Your task to perform on an android device: What's on my calendar tomorrow? Image 0: 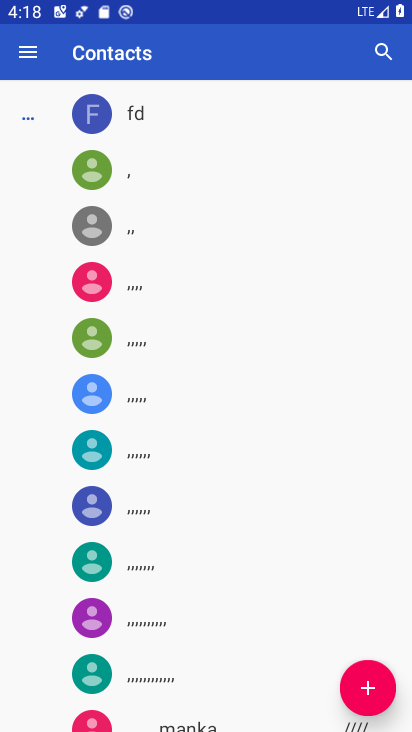
Step 0: press home button
Your task to perform on an android device: What's on my calendar tomorrow? Image 1: 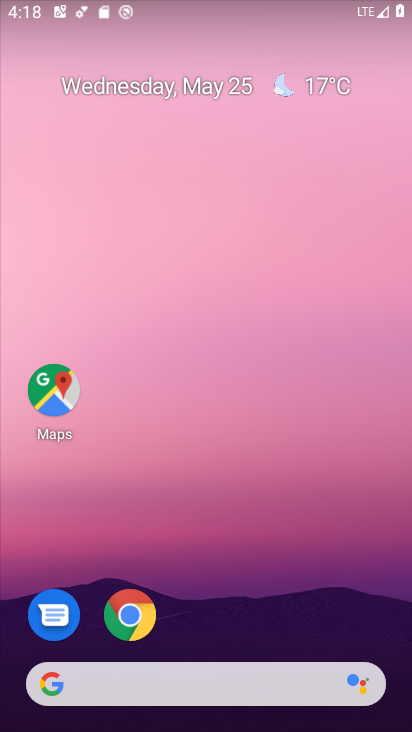
Step 1: click (165, 92)
Your task to perform on an android device: What's on my calendar tomorrow? Image 2: 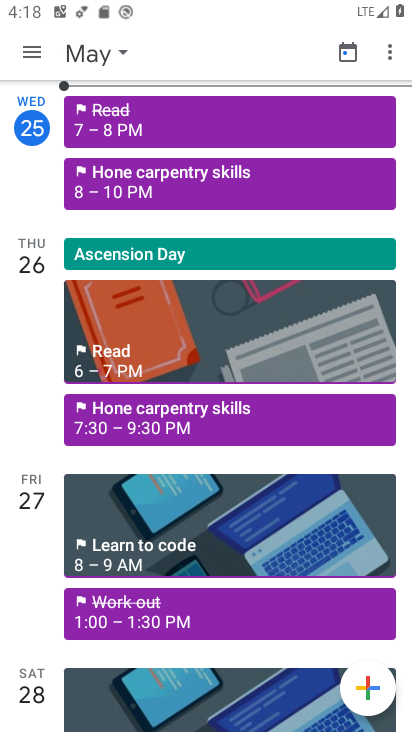
Step 2: task complete